Your task to perform on an android device: star an email in the gmail app Image 0: 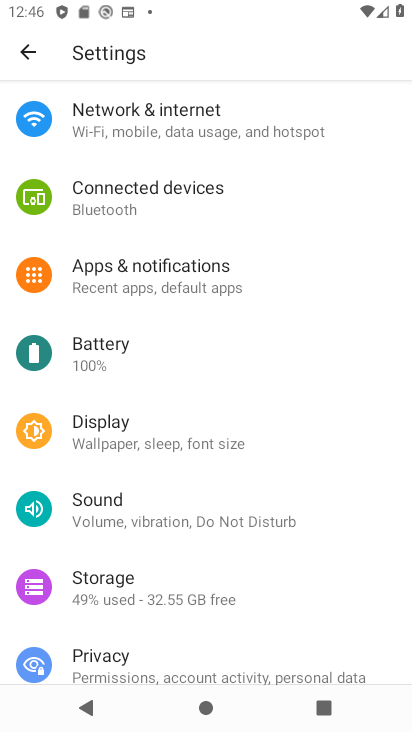
Step 0: press home button
Your task to perform on an android device: star an email in the gmail app Image 1: 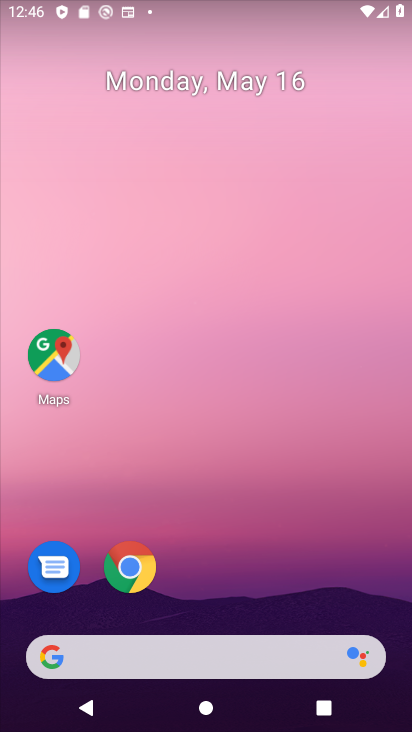
Step 1: drag from (246, 607) to (234, 85)
Your task to perform on an android device: star an email in the gmail app Image 2: 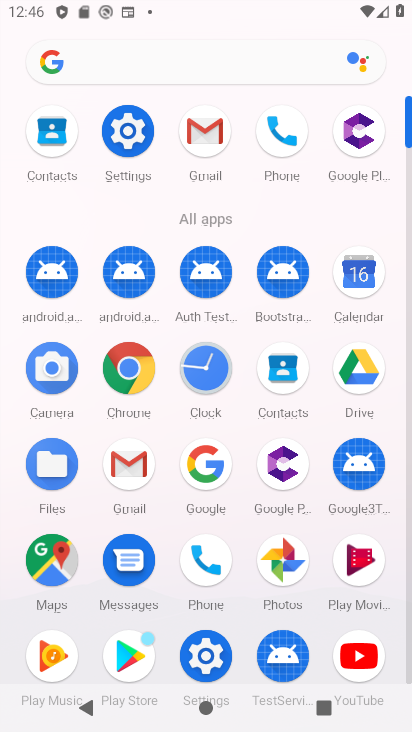
Step 2: click (199, 146)
Your task to perform on an android device: star an email in the gmail app Image 3: 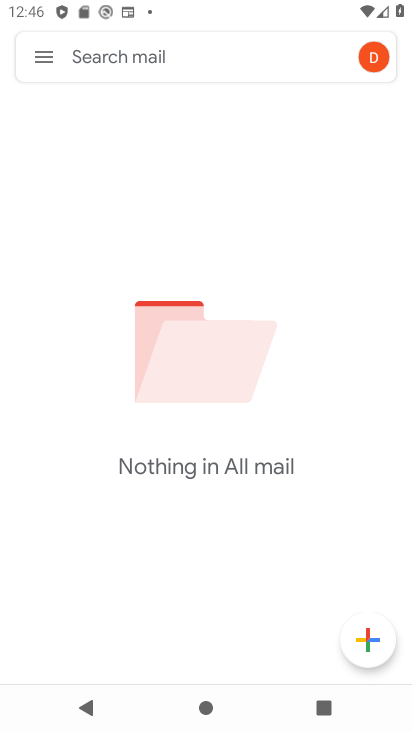
Step 3: click (44, 62)
Your task to perform on an android device: star an email in the gmail app Image 4: 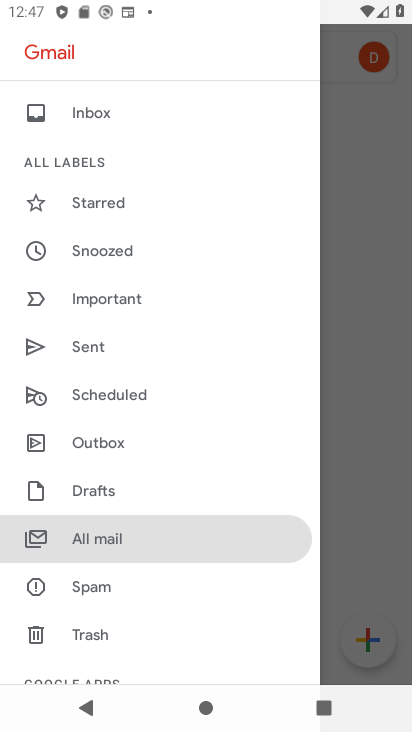
Step 4: click (163, 111)
Your task to perform on an android device: star an email in the gmail app Image 5: 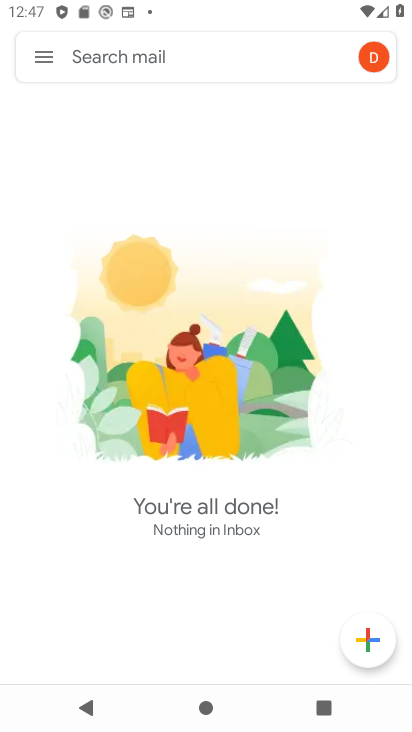
Step 5: task complete